Your task to perform on an android device: toggle airplane mode Image 0: 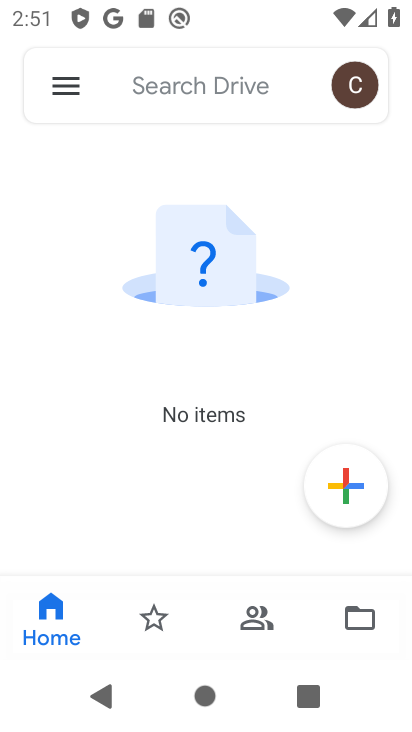
Step 0: press back button
Your task to perform on an android device: toggle airplane mode Image 1: 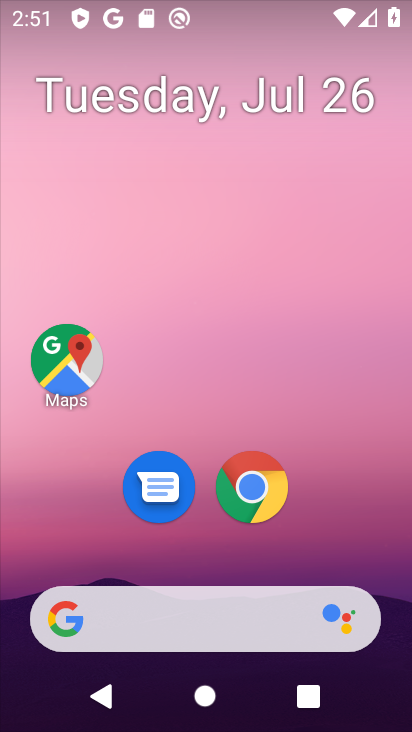
Step 1: drag from (343, 17) to (321, 508)
Your task to perform on an android device: toggle airplane mode Image 2: 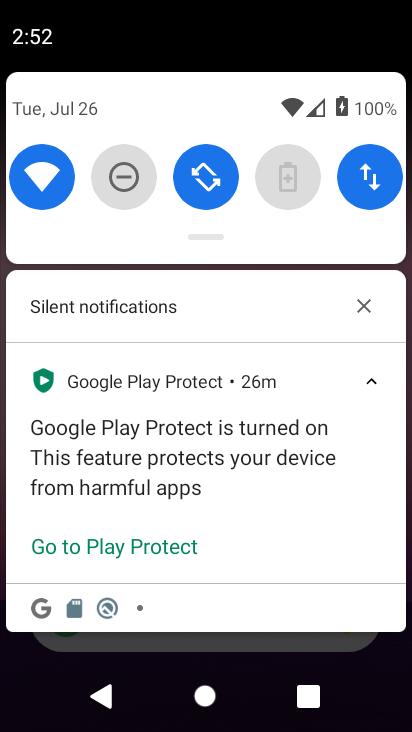
Step 2: drag from (194, 223) to (185, 730)
Your task to perform on an android device: toggle airplane mode Image 3: 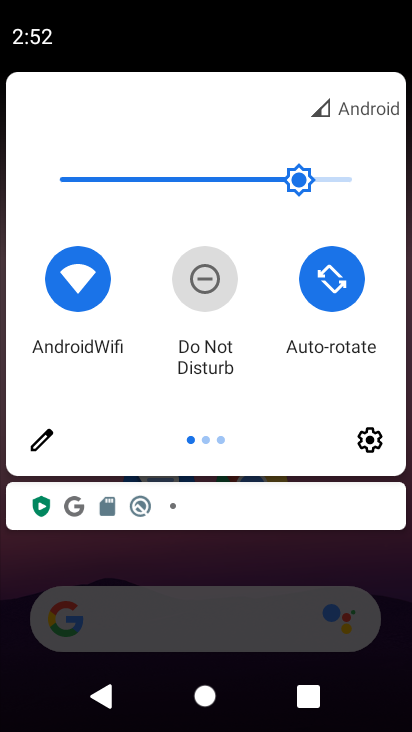
Step 3: drag from (338, 315) to (10, 321)
Your task to perform on an android device: toggle airplane mode Image 4: 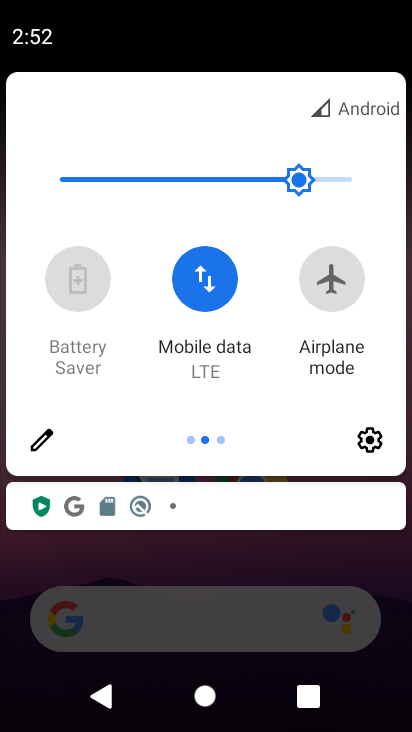
Step 4: click (326, 281)
Your task to perform on an android device: toggle airplane mode Image 5: 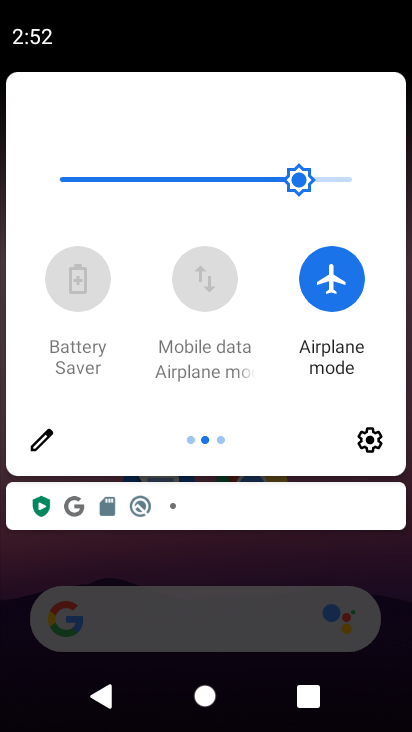
Step 5: task complete